Your task to perform on an android device: see creations saved in the google photos Image 0: 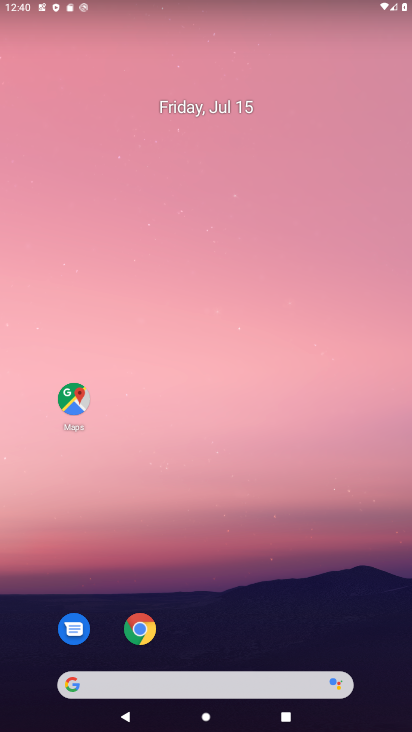
Step 0: drag from (292, 614) to (249, 38)
Your task to perform on an android device: see creations saved in the google photos Image 1: 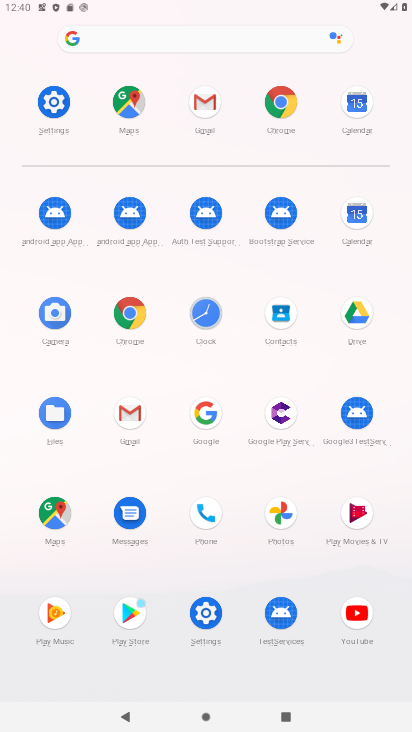
Step 1: click (284, 512)
Your task to perform on an android device: see creations saved in the google photos Image 2: 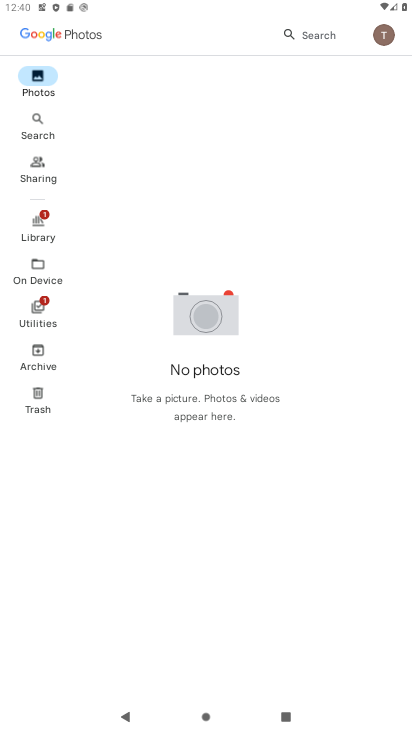
Step 2: click (33, 227)
Your task to perform on an android device: see creations saved in the google photos Image 3: 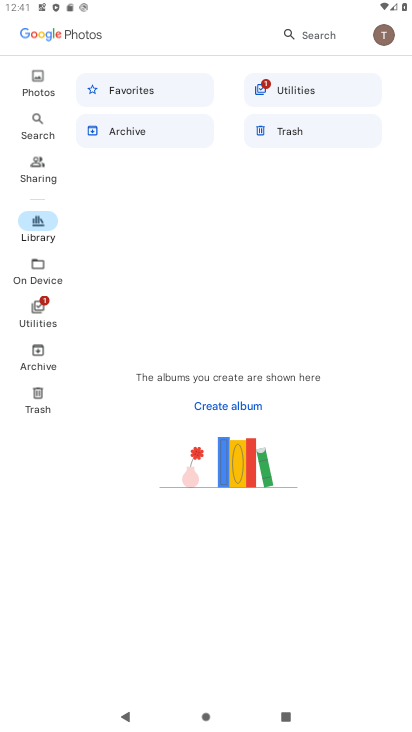
Step 3: click (318, 85)
Your task to perform on an android device: see creations saved in the google photos Image 4: 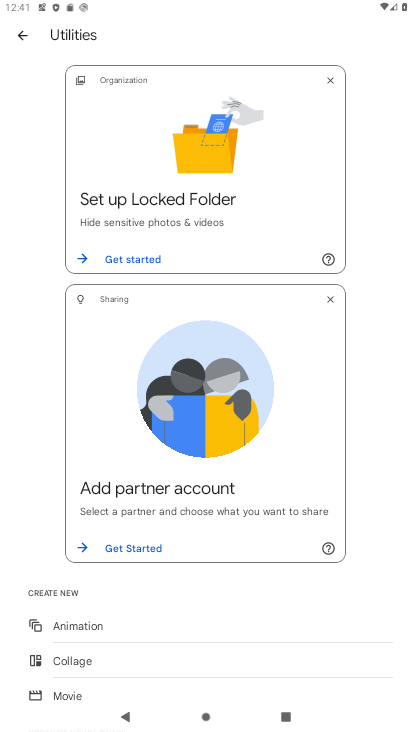
Step 4: click (22, 40)
Your task to perform on an android device: see creations saved in the google photos Image 5: 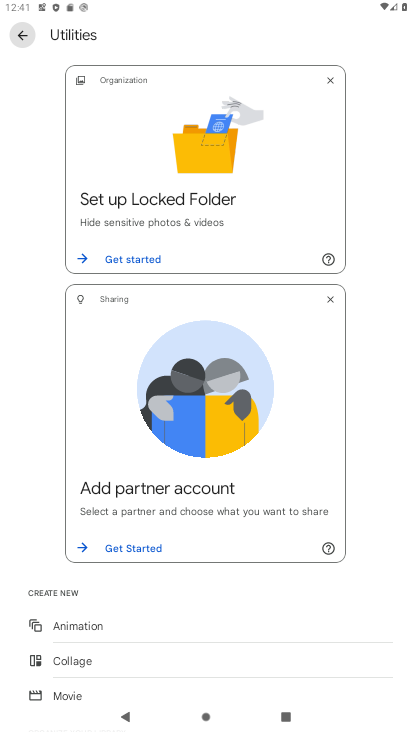
Step 5: click (22, 40)
Your task to perform on an android device: see creations saved in the google photos Image 6: 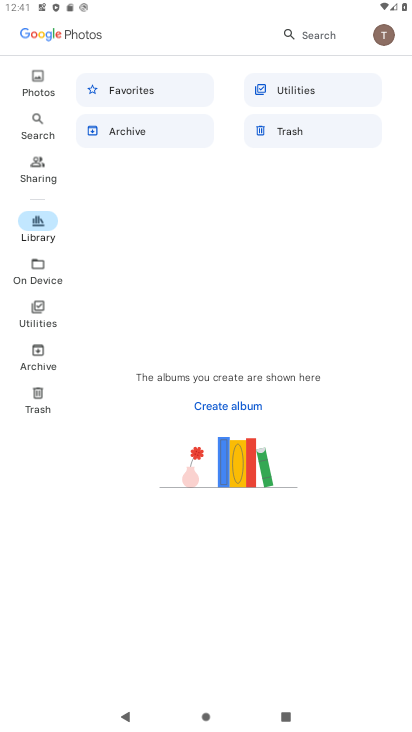
Step 6: task complete